Your task to perform on an android device: What is the news today? Image 0: 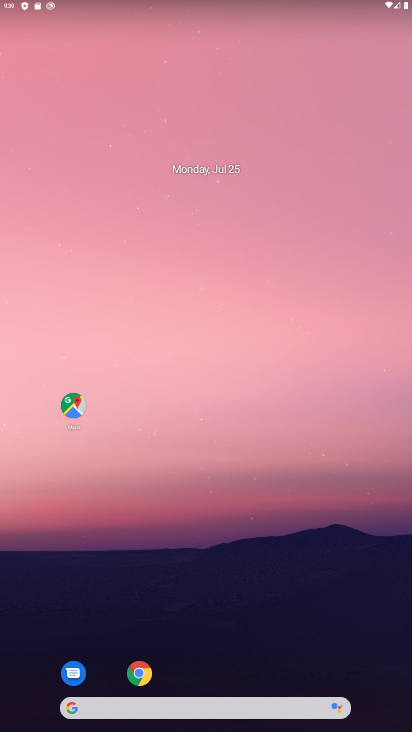
Step 0: click (140, 667)
Your task to perform on an android device: What is the news today? Image 1: 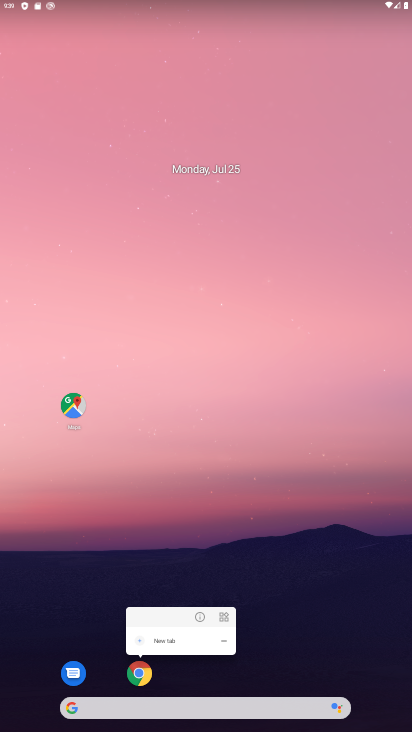
Step 1: click (136, 673)
Your task to perform on an android device: What is the news today? Image 2: 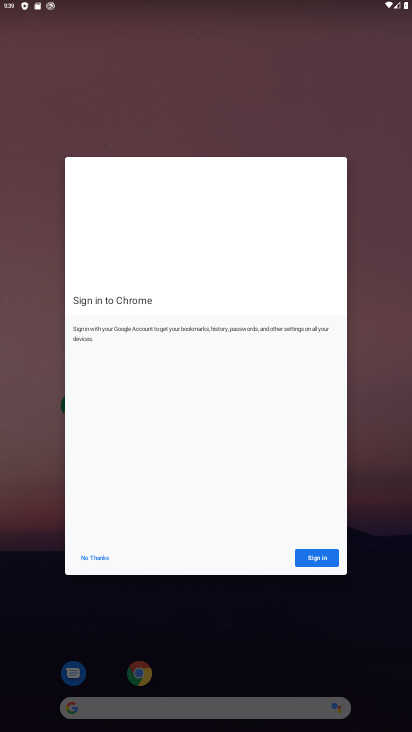
Step 2: click (314, 557)
Your task to perform on an android device: What is the news today? Image 3: 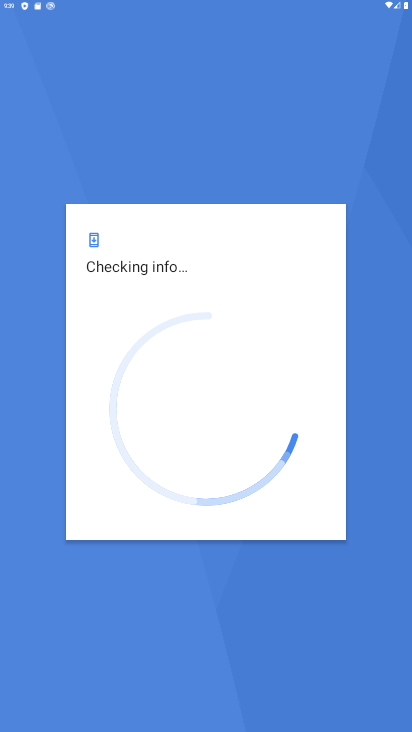
Step 3: task complete